Your task to perform on an android device: toggle pop-ups in chrome Image 0: 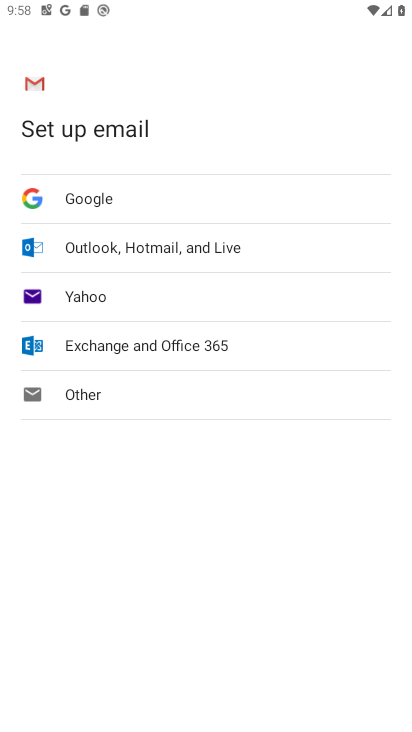
Step 0: press home button
Your task to perform on an android device: toggle pop-ups in chrome Image 1: 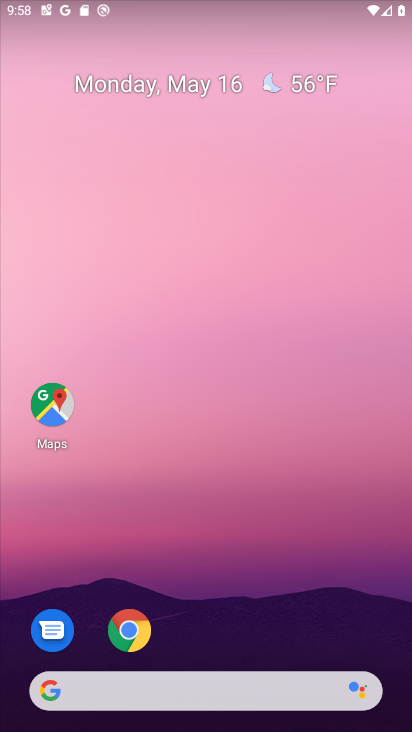
Step 1: click (134, 625)
Your task to perform on an android device: toggle pop-ups in chrome Image 2: 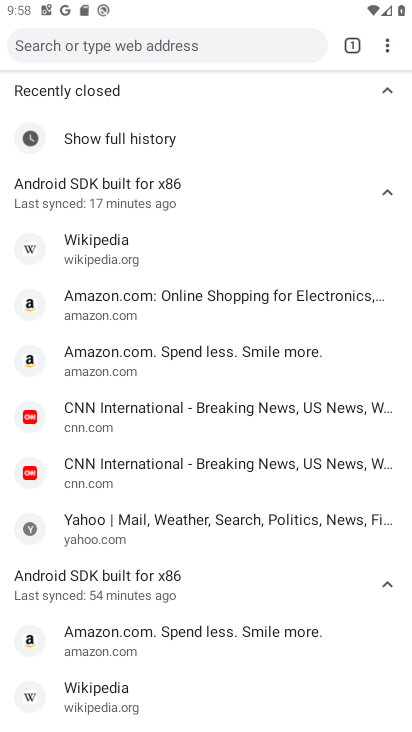
Step 2: click (379, 47)
Your task to perform on an android device: toggle pop-ups in chrome Image 3: 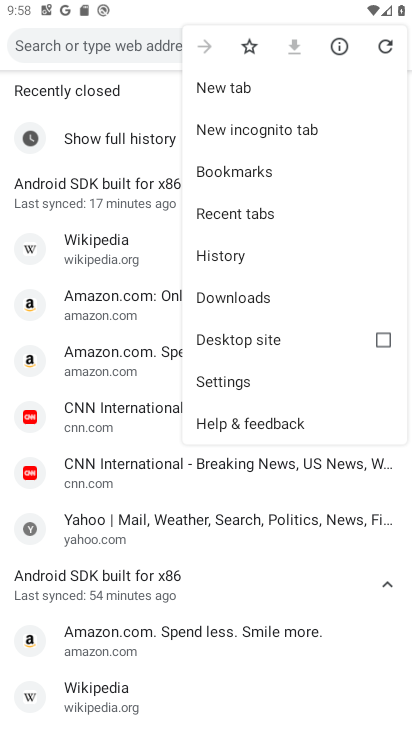
Step 3: click (243, 380)
Your task to perform on an android device: toggle pop-ups in chrome Image 4: 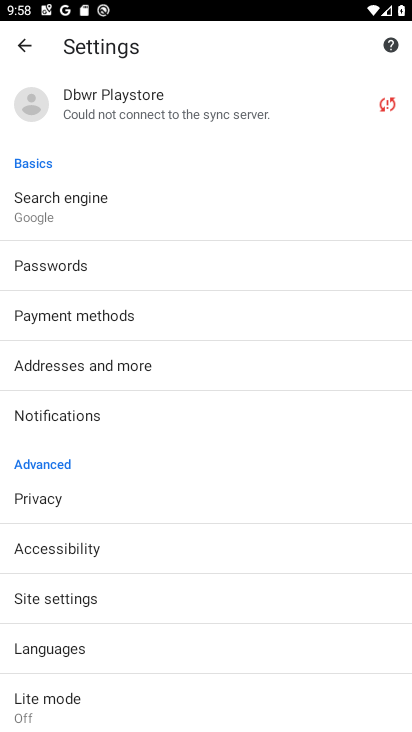
Step 4: click (159, 605)
Your task to perform on an android device: toggle pop-ups in chrome Image 5: 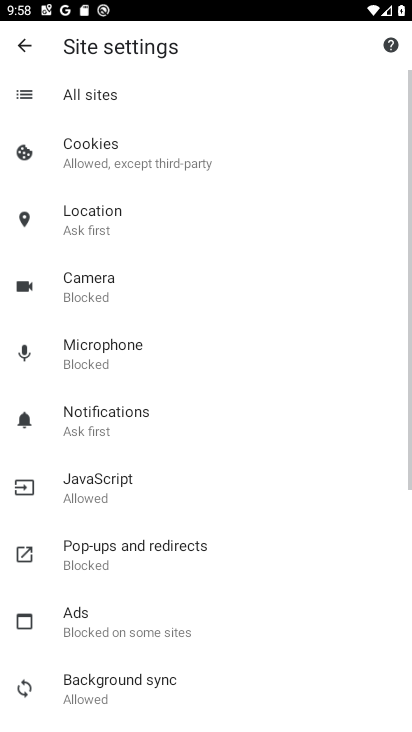
Step 5: click (216, 543)
Your task to perform on an android device: toggle pop-ups in chrome Image 6: 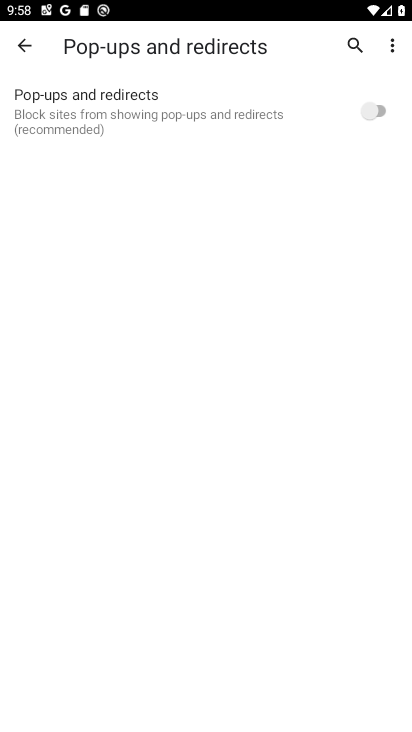
Step 6: click (368, 102)
Your task to perform on an android device: toggle pop-ups in chrome Image 7: 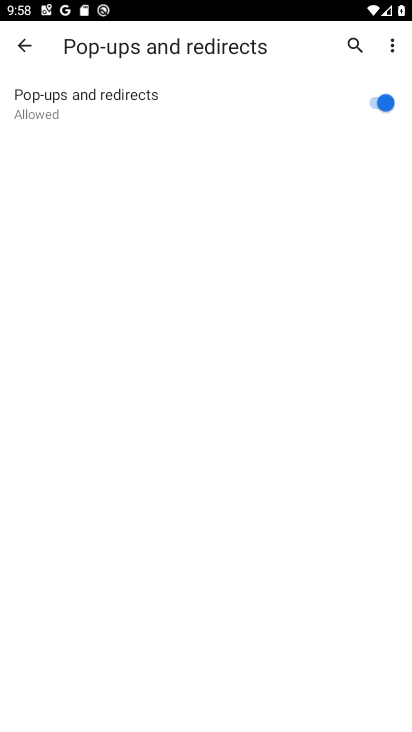
Step 7: task complete